Your task to perform on an android device: Search for vegetarian restaurants on Maps Image 0: 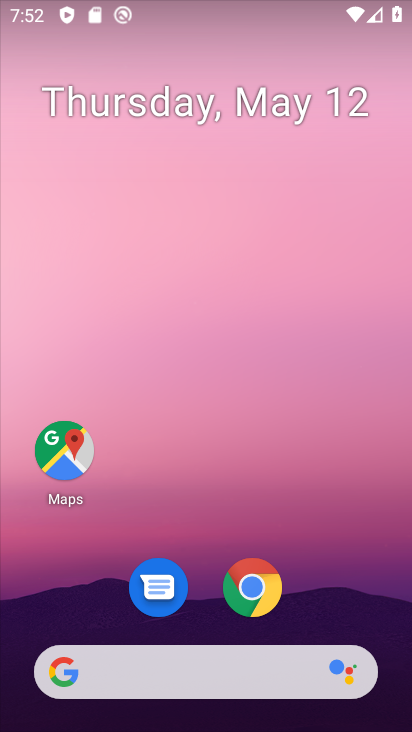
Step 0: drag from (312, 536) to (308, 161)
Your task to perform on an android device: Search for vegetarian restaurants on Maps Image 1: 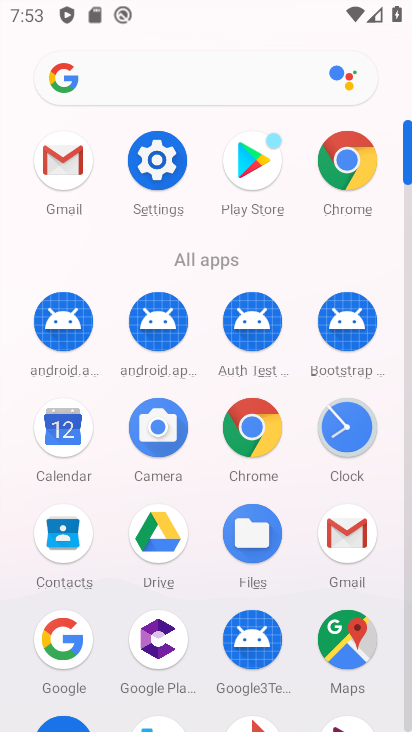
Step 1: click (338, 629)
Your task to perform on an android device: Search for vegetarian restaurants on Maps Image 2: 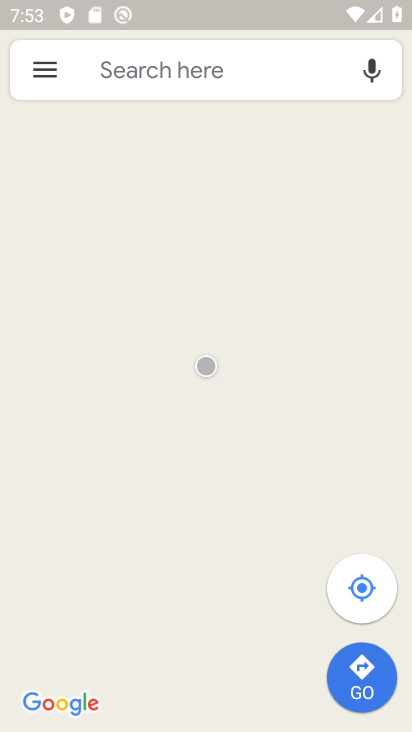
Step 2: click (143, 71)
Your task to perform on an android device: Search for vegetarian restaurants on Maps Image 3: 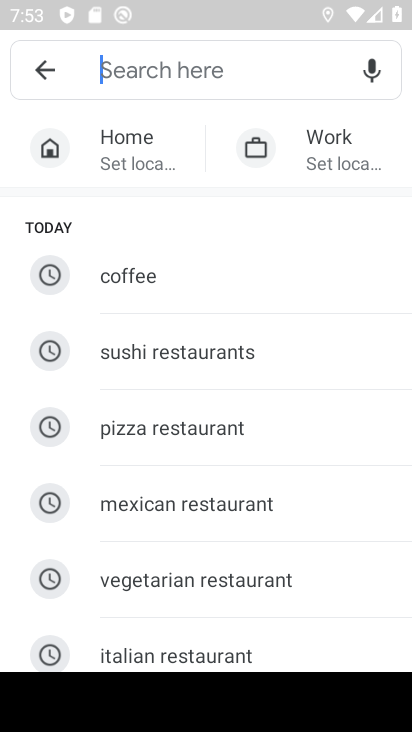
Step 3: click (178, 63)
Your task to perform on an android device: Search for vegetarian restaurants on Maps Image 4: 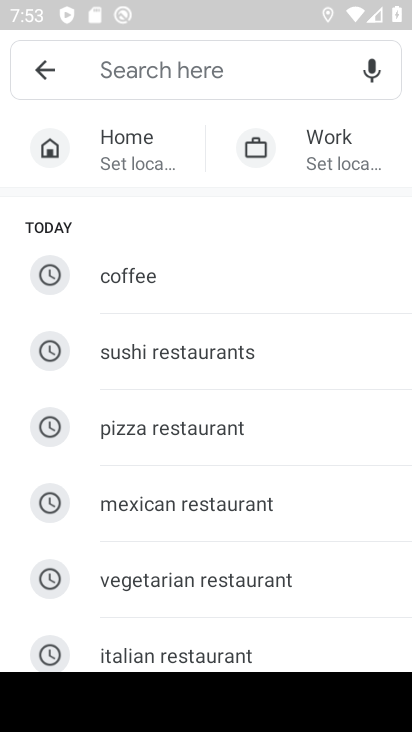
Step 4: type "vegetarian restaurants"
Your task to perform on an android device: Search for vegetarian restaurants on Maps Image 5: 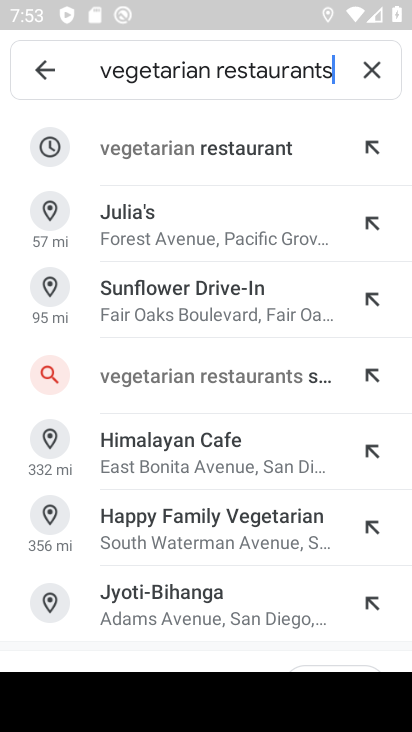
Step 5: click (141, 151)
Your task to perform on an android device: Search for vegetarian restaurants on Maps Image 6: 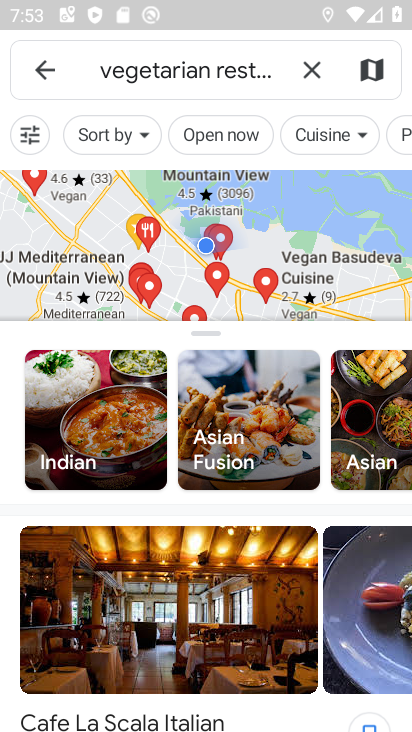
Step 6: task complete